Your task to perform on an android device: allow cookies in the chrome app Image 0: 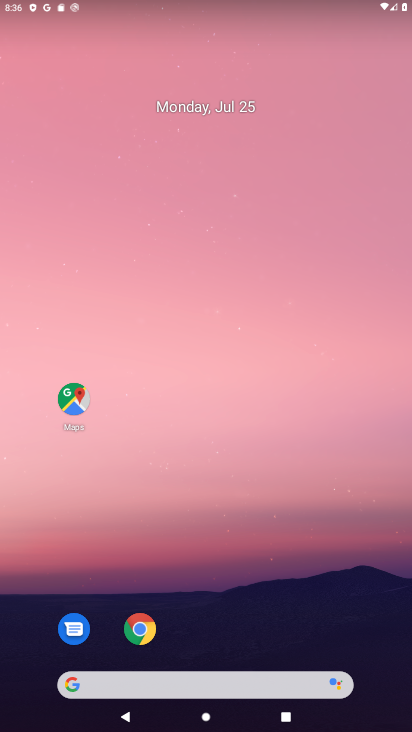
Step 0: click (144, 629)
Your task to perform on an android device: allow cookies in the chrome app Image 1: 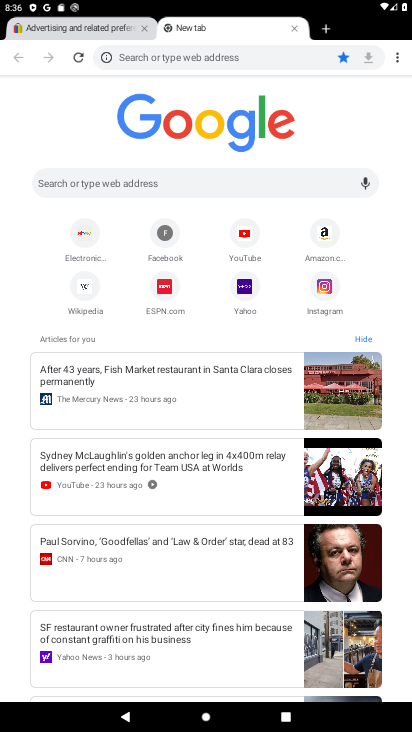
Step 1: click (401, 59)
Your task to perform on an android device: allow cookies in the chrome app Image 2: 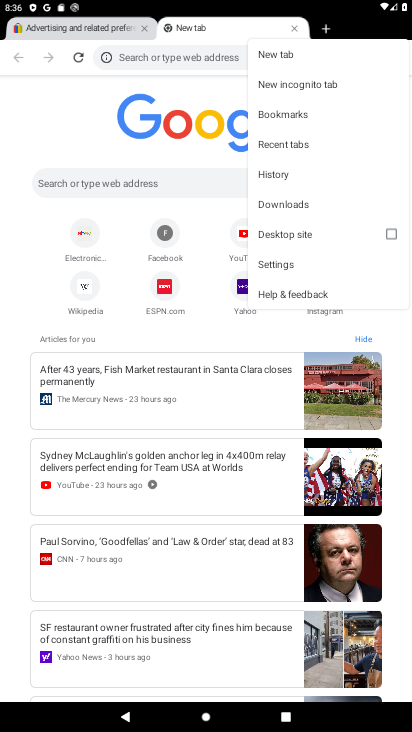
Step 2: click (274, 266)
Your task to perform on an android device: allow cookies in the chrome app Image 3: 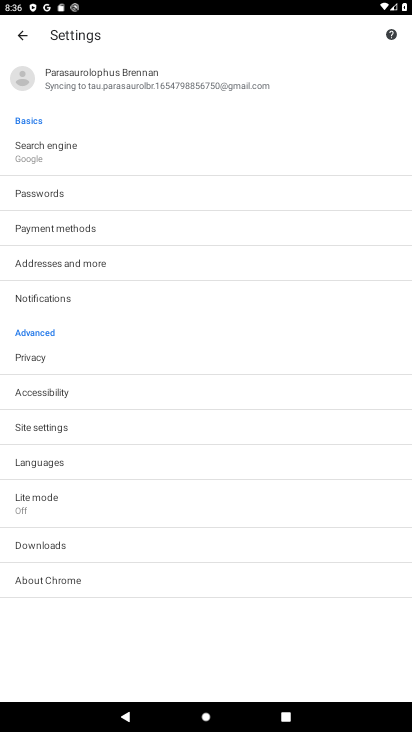
Step 3: click (51, 426)
Your task to perform on an android device: allow cookies in the chrome app Image 4: 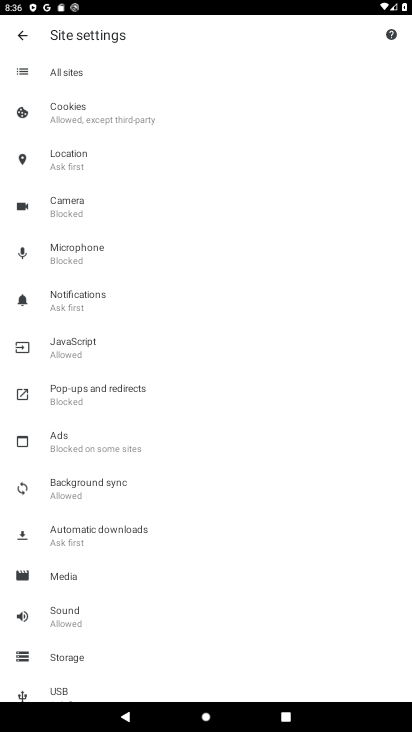
Step 4: click (115, 114)
Your task to perform on an android device: allow cookies in the chrome app Image 5: 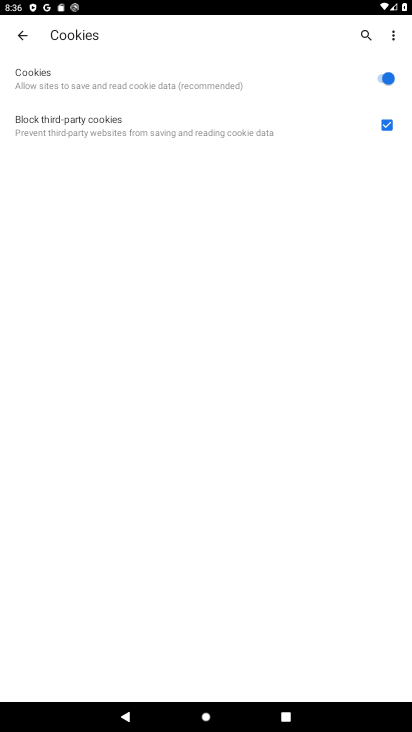
Step 5: task complete